Your task to perform on an android device: Search for a new foundation on Sephora Image 0: 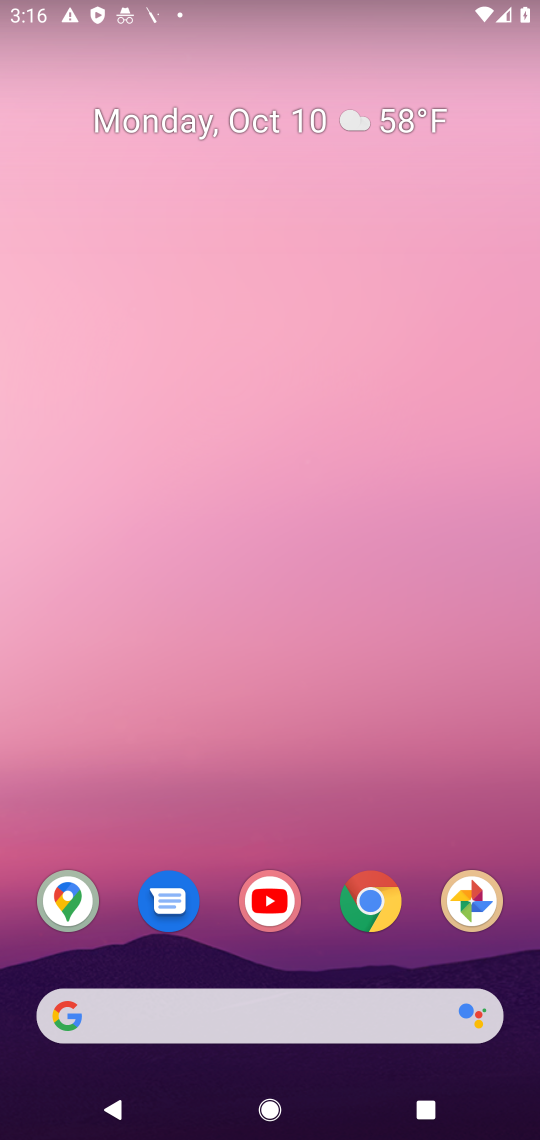
Step 0: drag from (381, 986) to (313, 474)
Your task to perform on an android device: Search for a new foundation on Sephora Image 1: 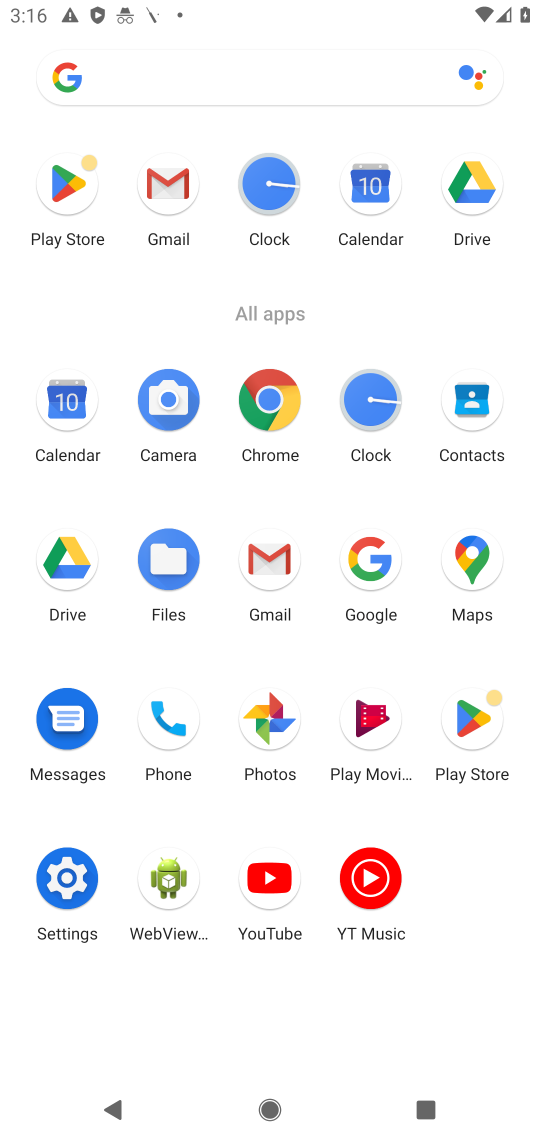
Step 1: click (387, 578)
Your task to perform on an android device: Search for a new foundation on Sephora Image 2: 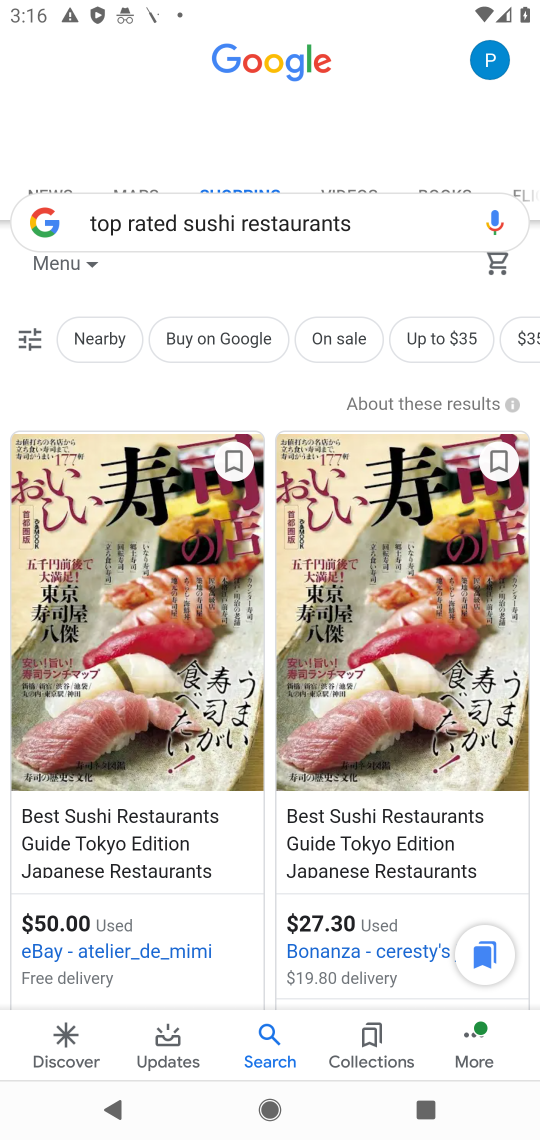
Step 2: click (402, 225)
Your task to perform on an android device: Search for a new foundation on Sephora Image 3: 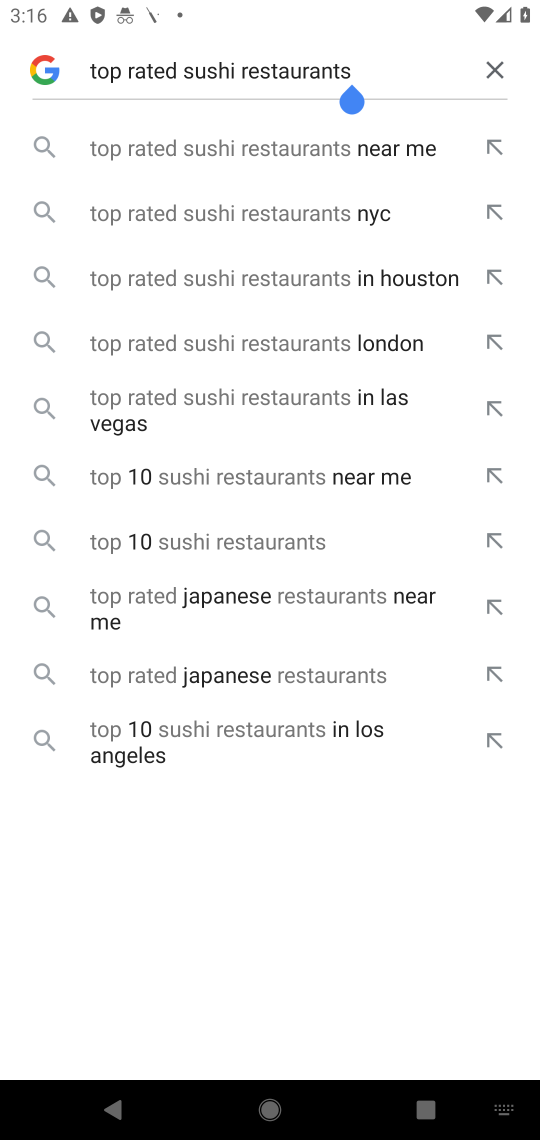
Step 3: click (496, 67)
Your task to perform on an android device: Search for a new foundation on Sephora Image 4: 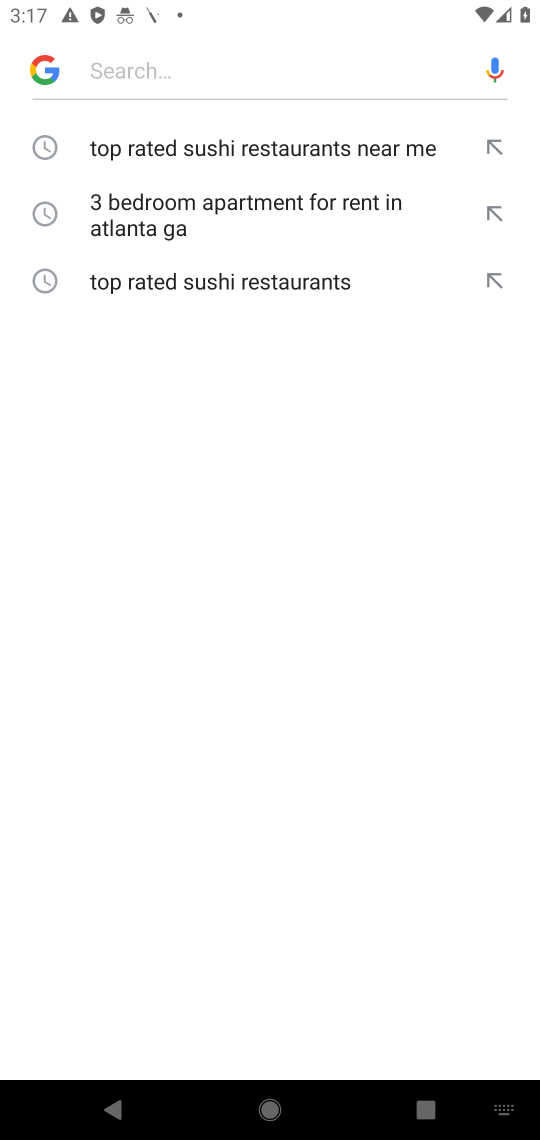
Step 4: type "new foundation on Sephora"
Your task to perform on an android device: Search for a new foundation on Sephora Image 5: 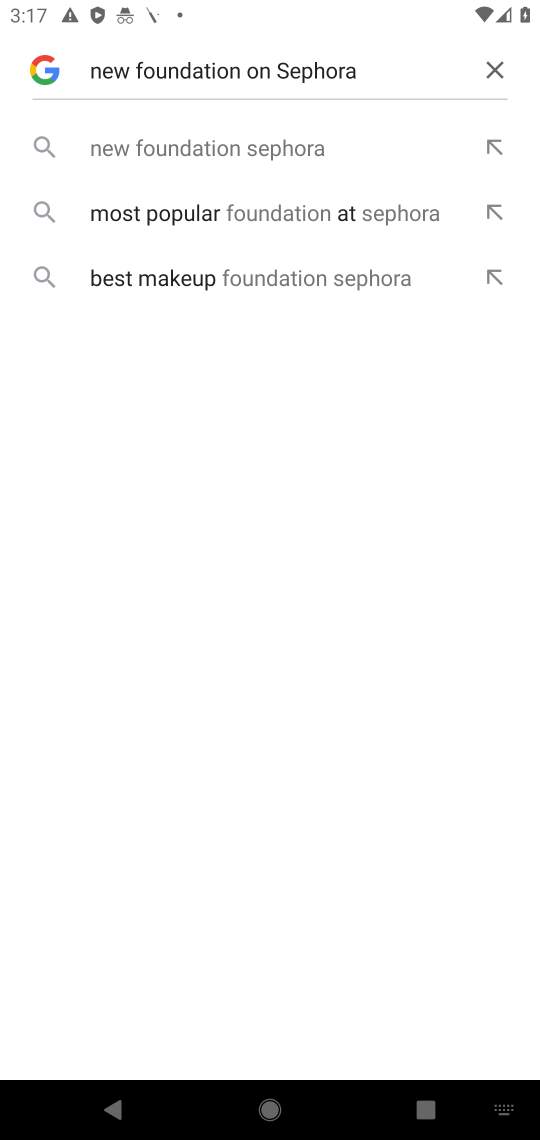
Step 5: click (346, 156)
Your task to perform on an android device: Search for a new foundation on Sephora Image 6: 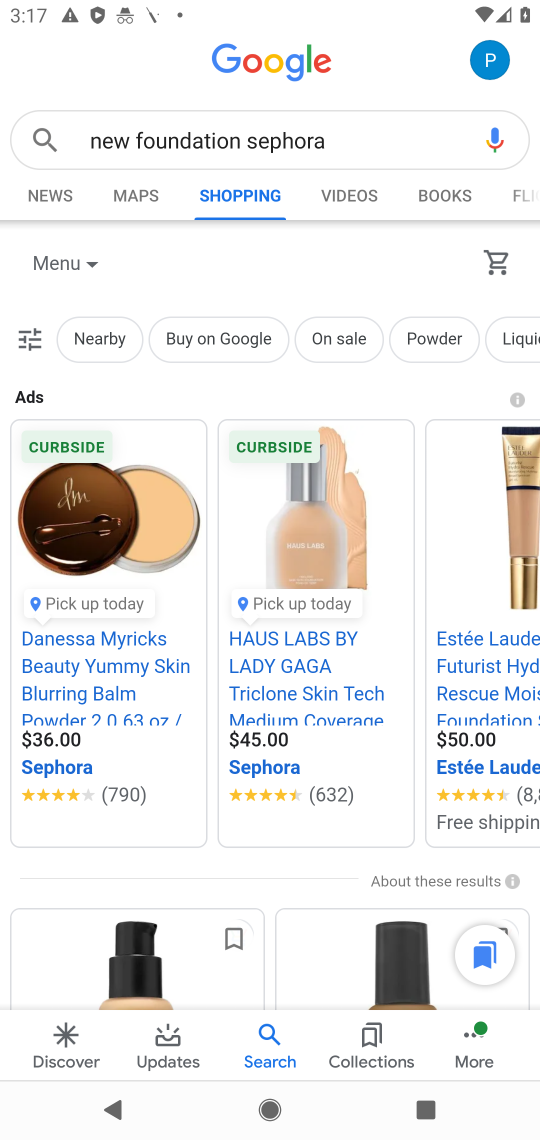
Step 6: task complete